Your task to perform on an android device: see creations saved in the google photos Image 0: 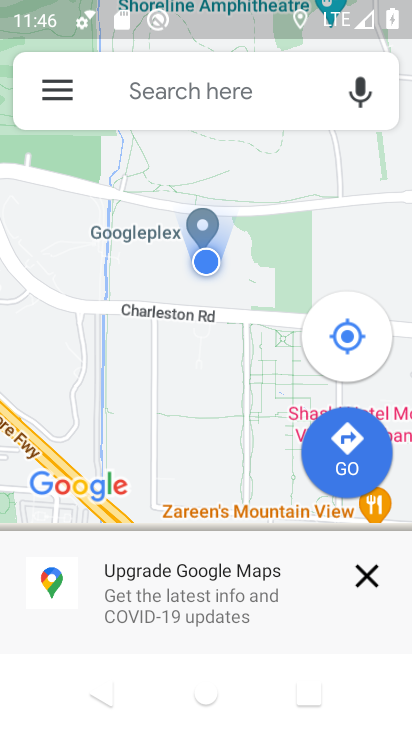
Step 0: press home button
Your task to perform on an android device: see creations saved in the google photos Image 1: 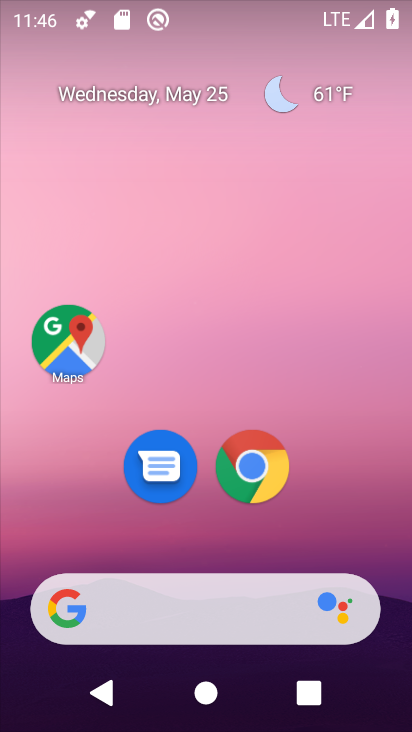
Step 1: drag from (211, 549) to (221, 26)
Your task to perform on an android device: see creations saved in the google photos Image 2: 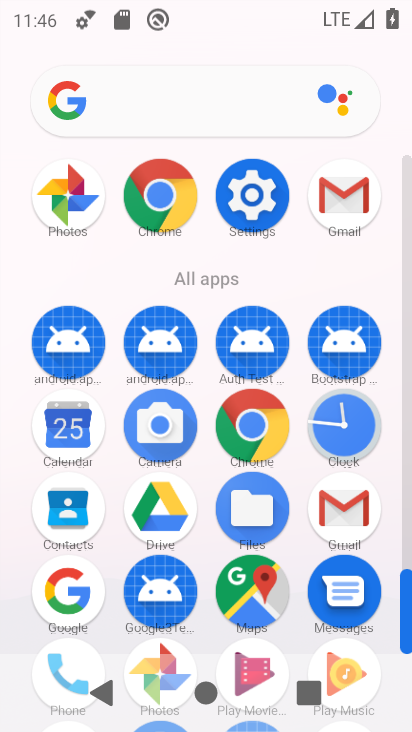
Step 2: drag from (182, 571) to (219, 376)
Your task to perform on an android device: see creations saved in the google photos Image 3: 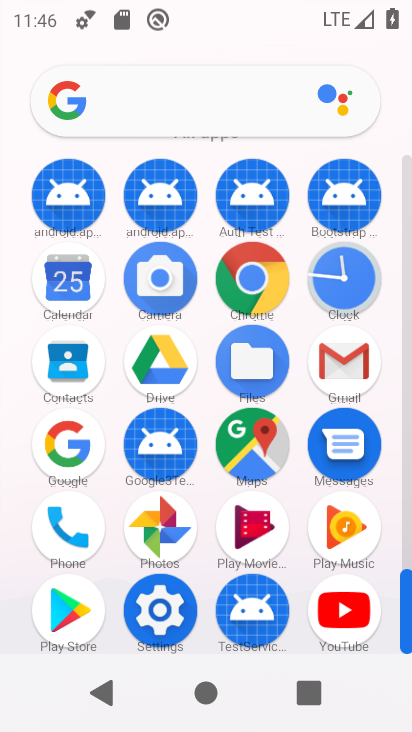
Step 3: click (182, 536)
Your task to perform on an android device: see creations saved in the google photos Image 4: 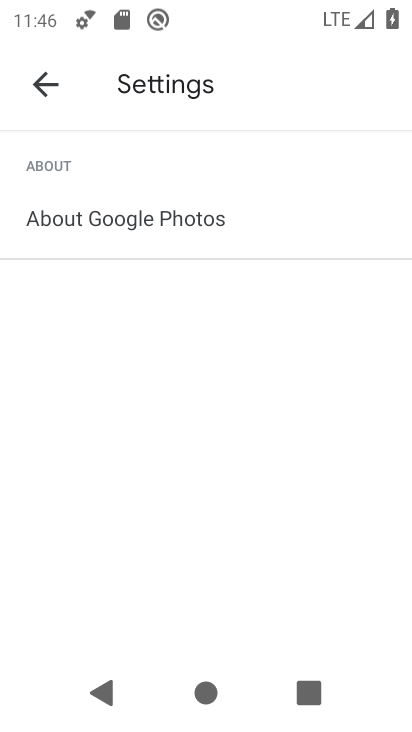
Step 4: click (56, 74)
Your task to perform on an android device: see creations saved in the google photos Image 5: 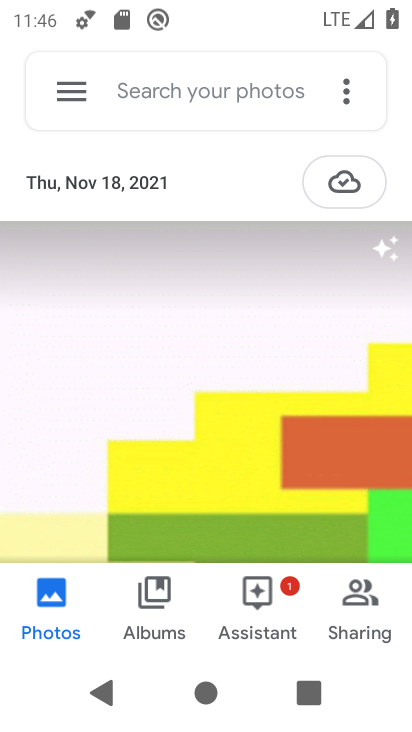
Step 5: click (256, 105)
Your task to perform on an android device: see creations saved in the google photos Image 6: 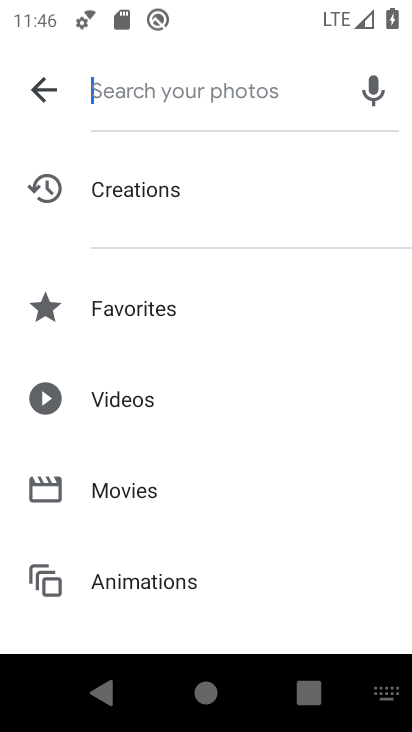
Step 6: click (127, 199)
Your task to perform on an android device: see creations saved in the google photos Image 7: 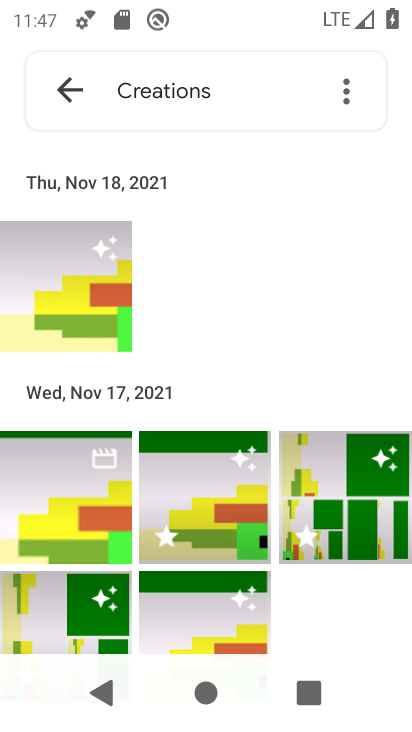
Step 7: task complete